Your task to perform on an android device: toggle javascript in the chrome app Image 0: 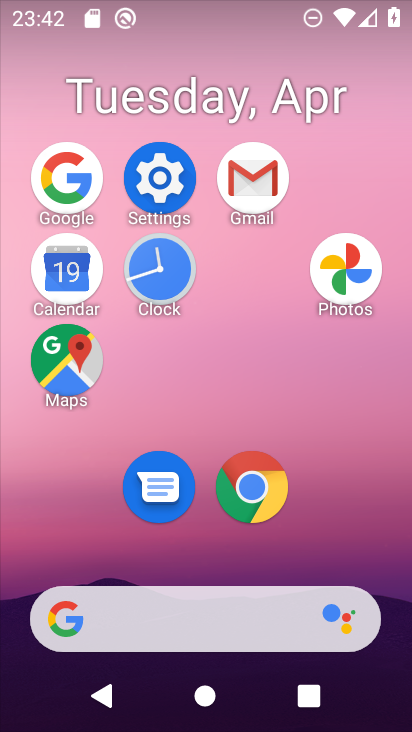
Step 0: click (236, 499)
Your task to perform on an android device: toggle javascript in the chrome app Image 1: 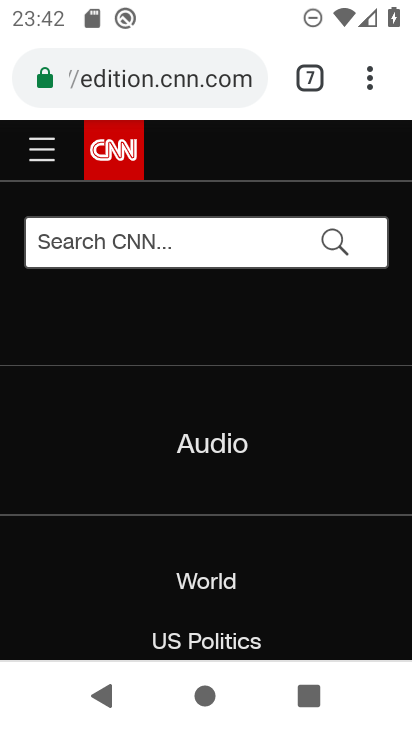
Step 1: click (376, 86)
Your task to perform on an android device: toggle javascript in the chrome app Image 2: 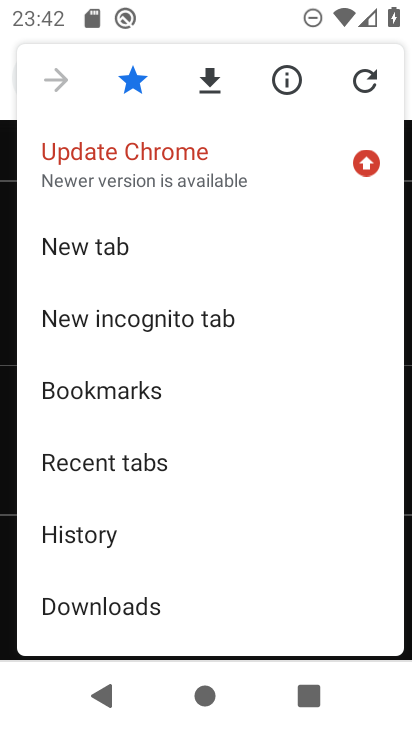
Step 2: drag from (133, 405) to (113, 70)
Your task to perform on an android device: toggle javascript in the chrome app Image 3: 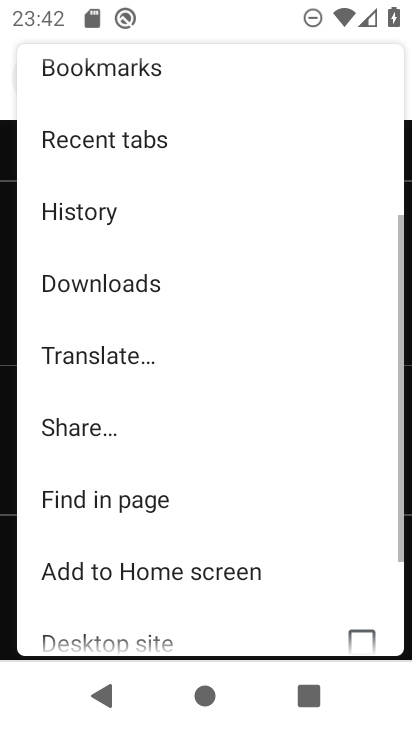
Step 3: drag from (210, 589) to (212, 123)
Your task to perform on an android device: toggle javascript in the chrome app Image 4: 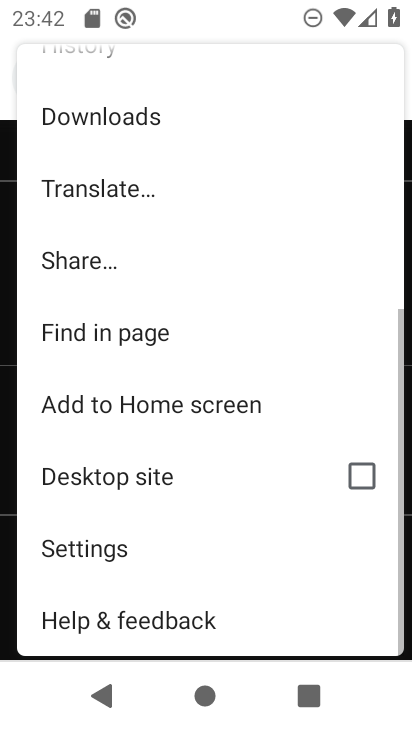
Step 4: click (143, 542)
Your task to perform on an android device: toggle javascript in the chrome app Image 5: 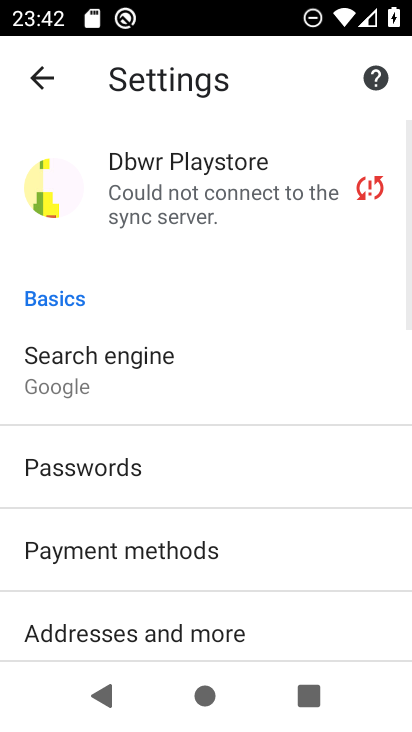
Step 5: drag from (196, 205) to (203, 146)
Your task to perform on an android device: toggle javascript in the chrome app Image 6: 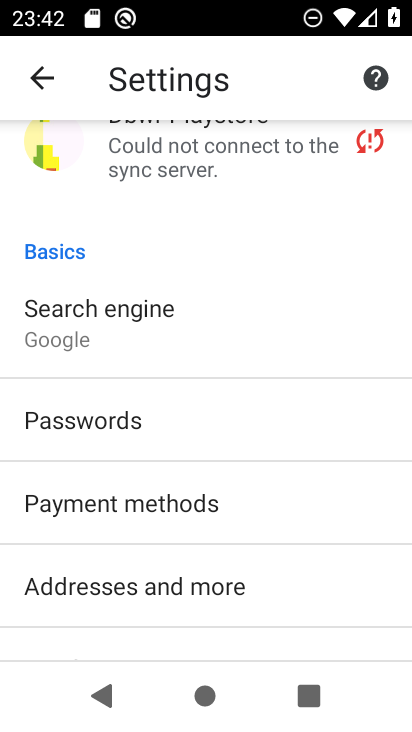
Step 6: drag from (212, 573) to (257, 62)
Your task to perform on an android device: toggle javascript in the chrome app Image 7: 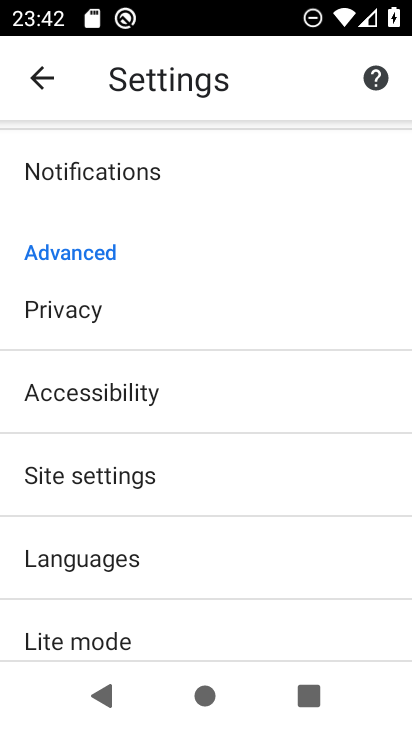
Step 7: click (235, 484)
Your task to perform on an android device: toggle javascript in the chrome app Image 8: 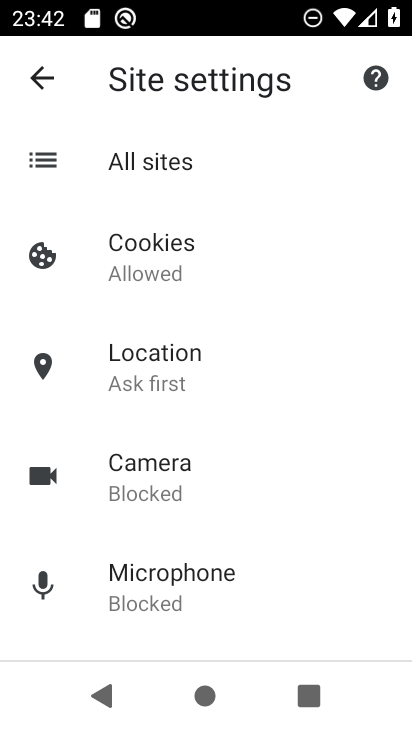
Step 8: drag from (253, 569) to (302, 145)
Your task to perform on an android device: toggle javascript in the chrome app Image 9: 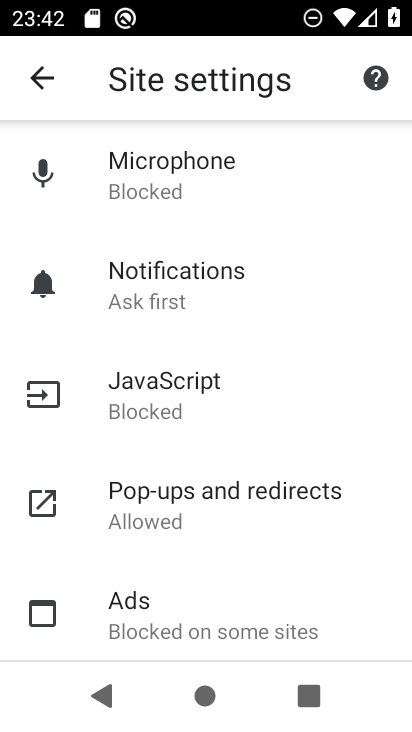
Step 9: click (255, 384)
Your task to perform on an android device: toggle javascript in the chrome app Image 10: 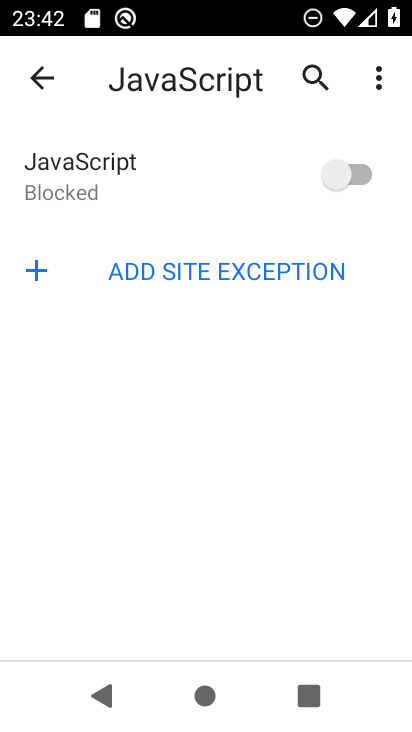
Step 10: click (358, 172)
Your task to perform on an android device: toggle javascript in the chrome app Image 11: 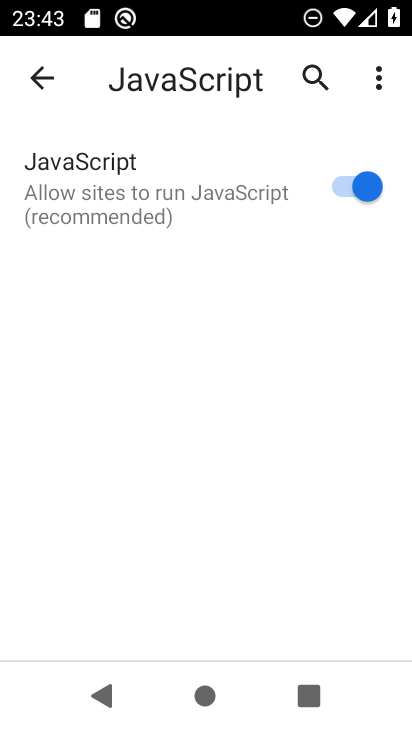
Step 11: task complete